Your task to perform on an android device: change notification settings in the gmail app Image 0: 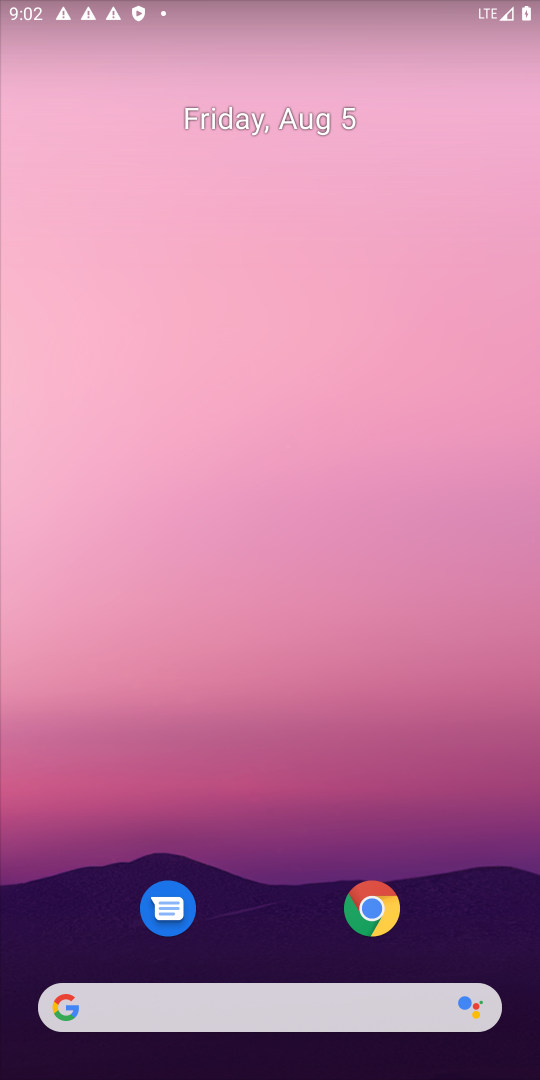
Step 0: drag from (243, 908) to (121, 0)
Your task to perform on an android device: change notification settings in the gmail app Image 1: 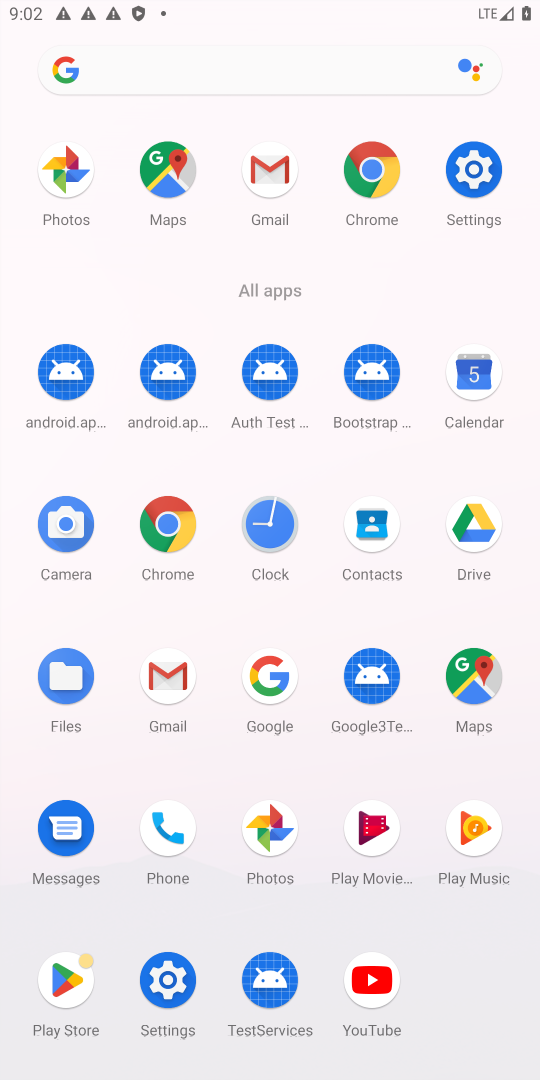
Step 1: click (258, 171)
Your task to perform on an android device: change notification settings in the gmail app Image 2: 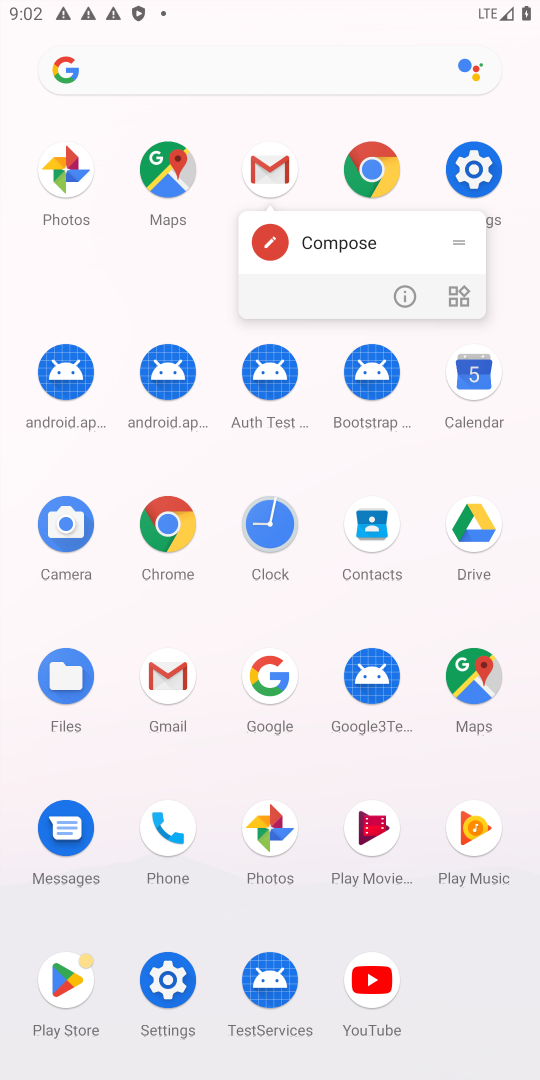
Step 2: click (276, 177)
Your task to perform on an android device: change notification settings in the gmail app Image 3: 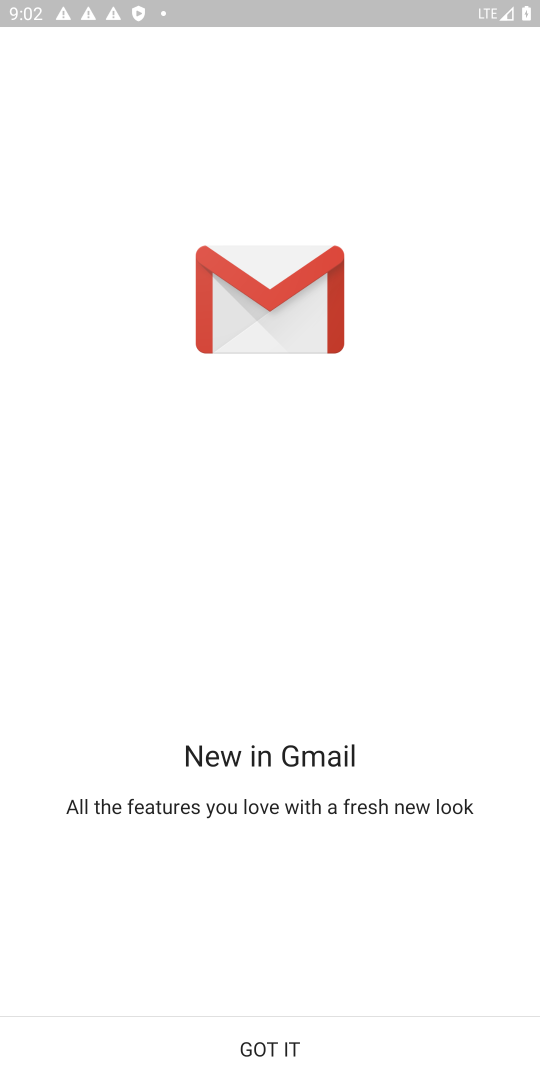
Step 3: click (360, 1061)
Your task to perform on an android device: change notification settings in the gmail app Image 4: 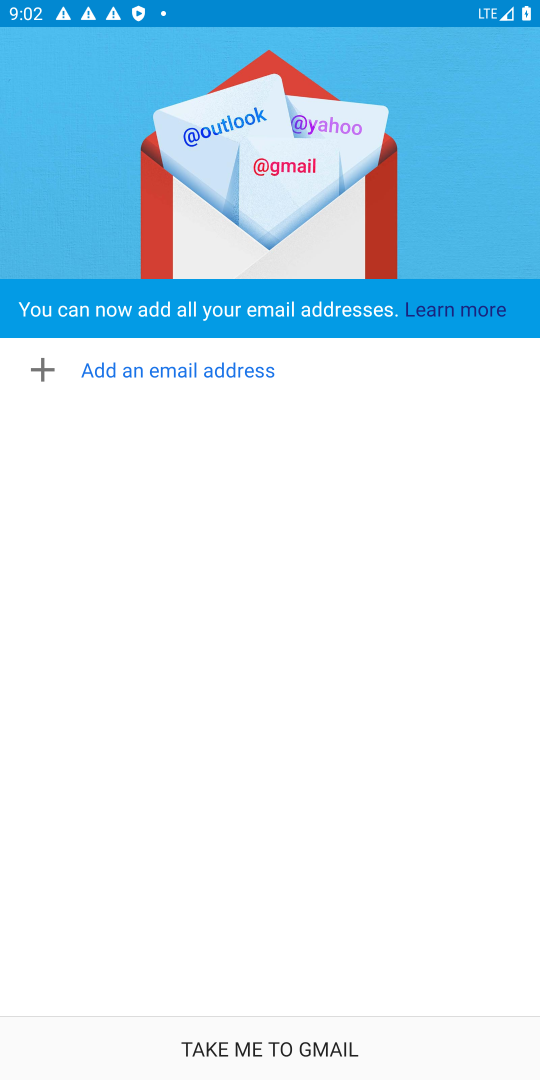
Step 4: click (380, 1043)
Your task to perform on an android device: change notification settings in the gmail app Image 5: 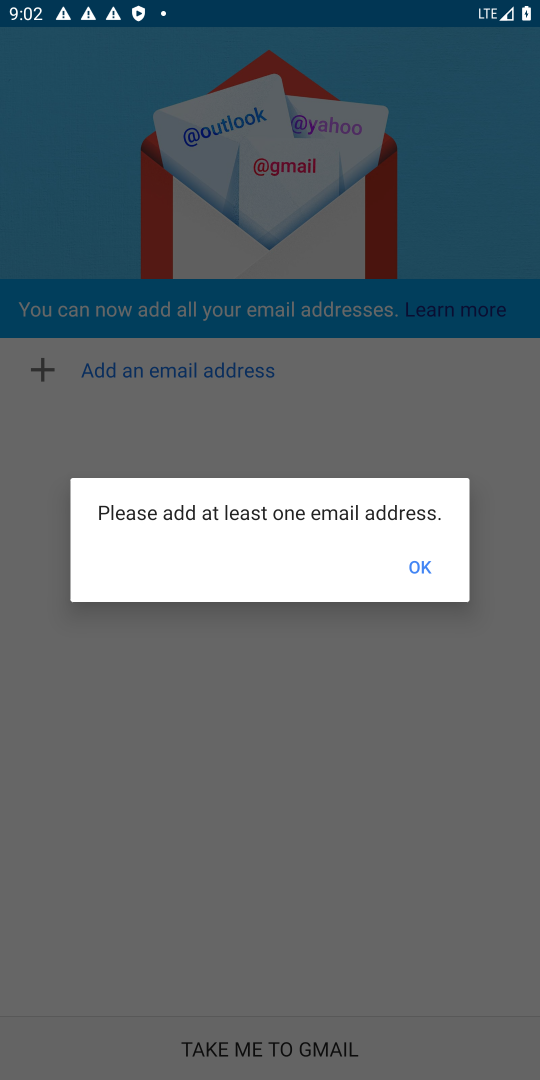
Step 5: task complete